Your task to perform on an android device: Open maps Image 0: 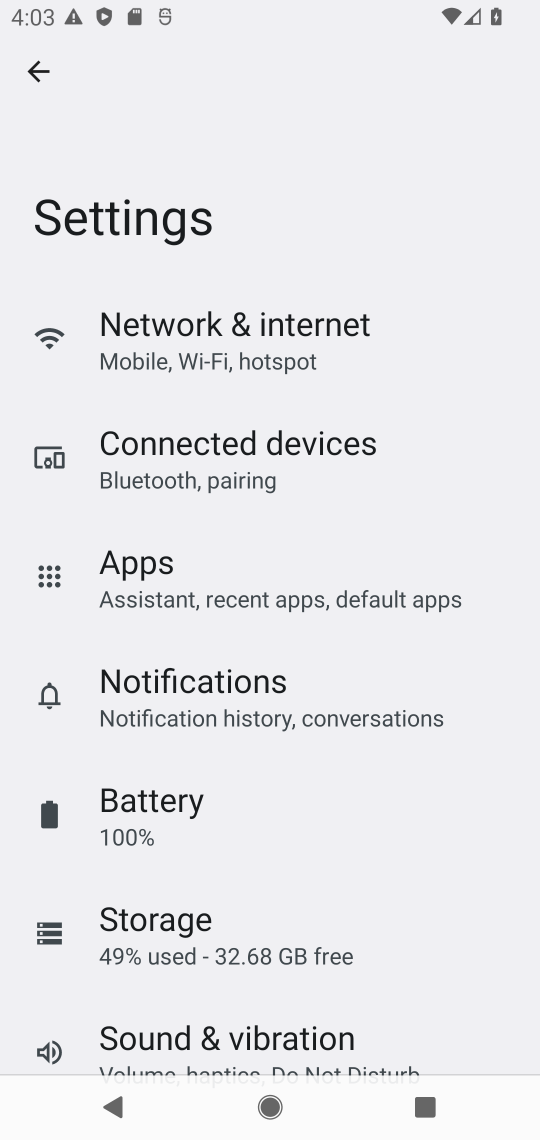
Step 0: press home button
Your task to perform on an android device: Open maps Image 1: 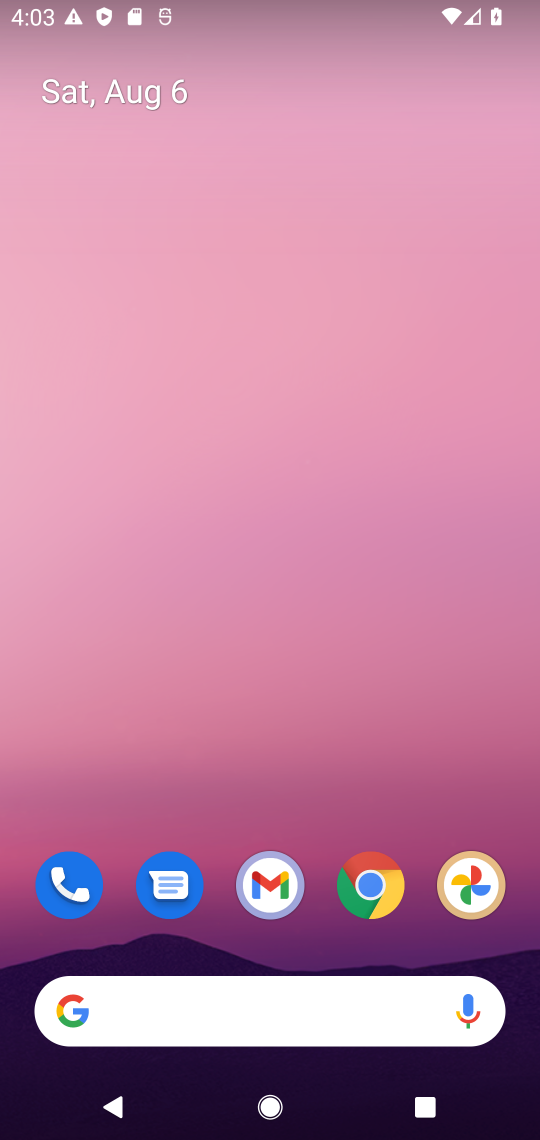
Step 1: drag from (270, 785) to (314, 231)
Your task to perform on an android device: Open maps Image 2: 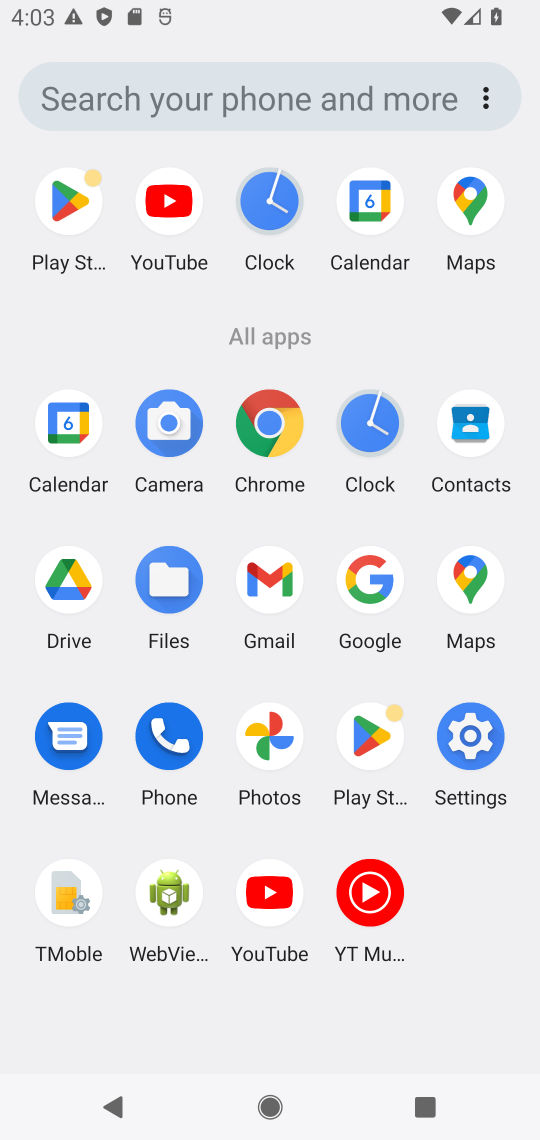
Step 2: click (477, 216)
Your task to perform on an android device: Open maps Image 3: 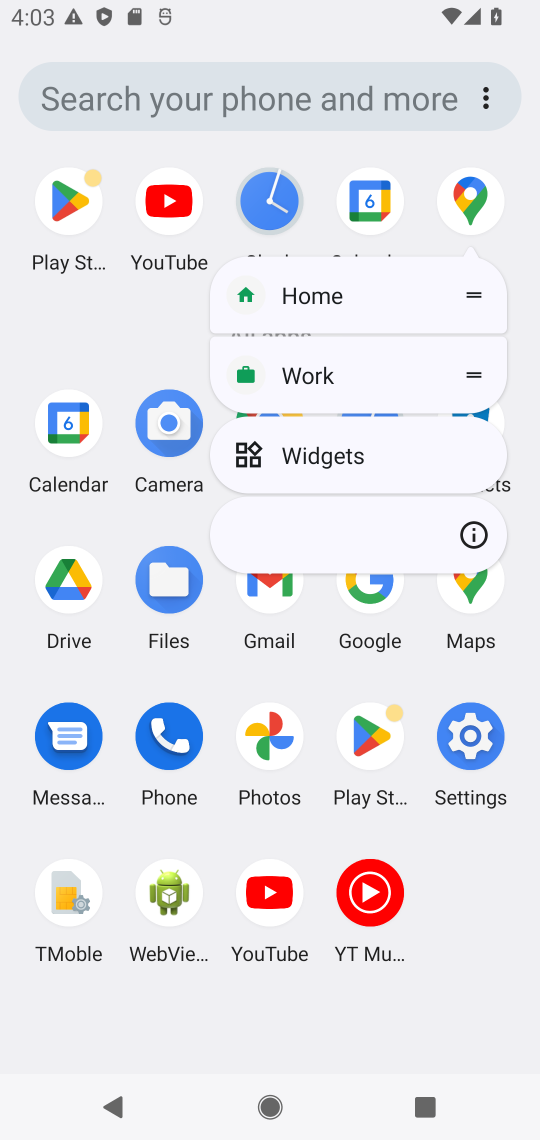
Step 3: click (471, 210)
Your task to perform on an android device: Open maps Image 4: 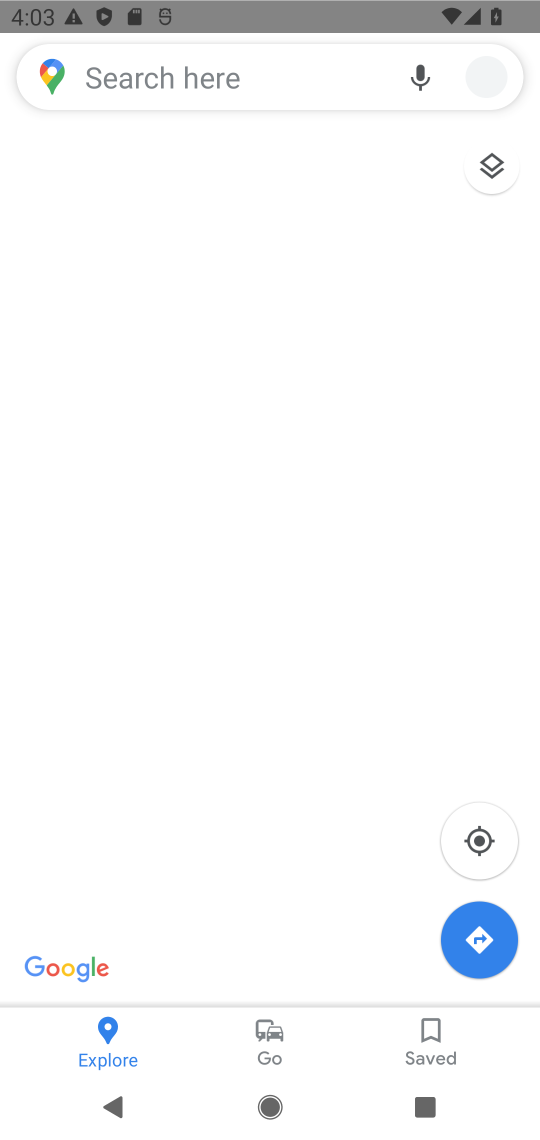
Step 4: task complete